Your task to perform on an android device: Go to wifi settings Image 0: 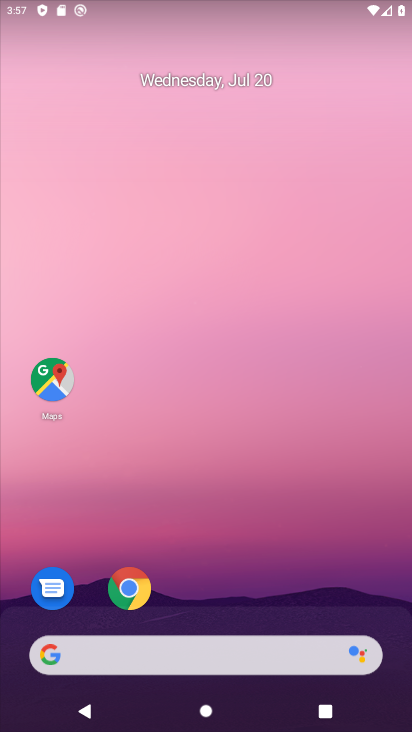
Step 0: press home button
Your task to perform on an android device: Go to wifi settings Image 1: 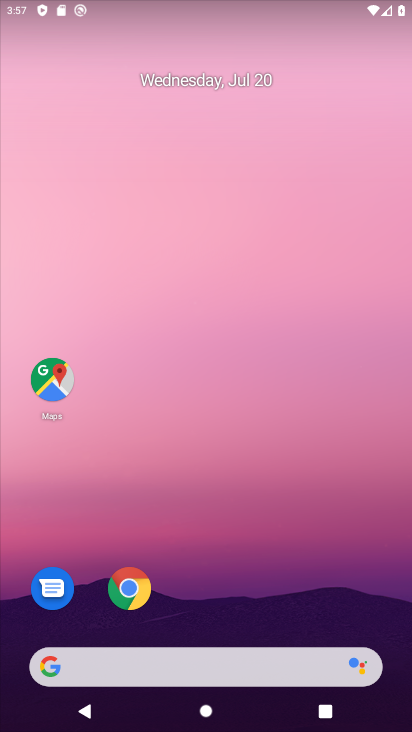
Step 1: drag from (231, 587) to (268, 8)
Your task to perform on an android device: Go to wifi settings Image 2: 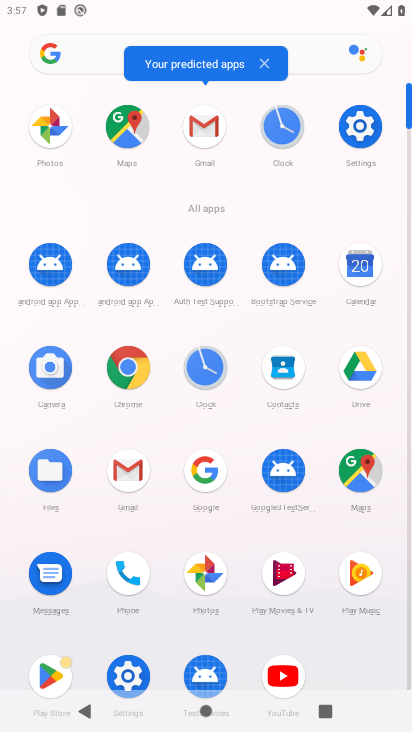
Step 2: click (352, 124)
Your task to perform on an android device: Go to wifi settings Image 3: 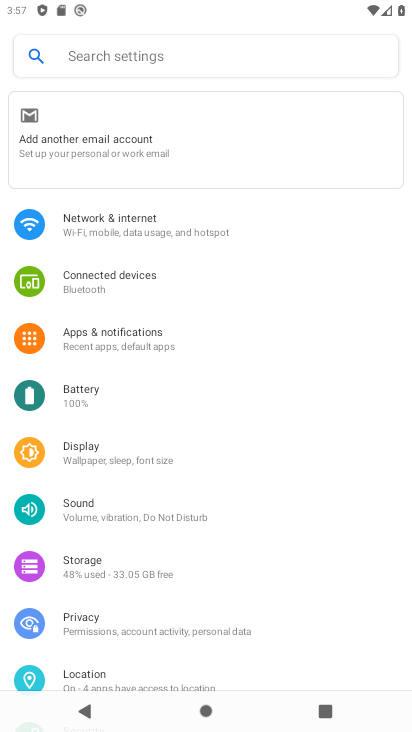
Step 3: click (104, 202)
Your task to perform on an android device: Go to wifi settings Image 4: 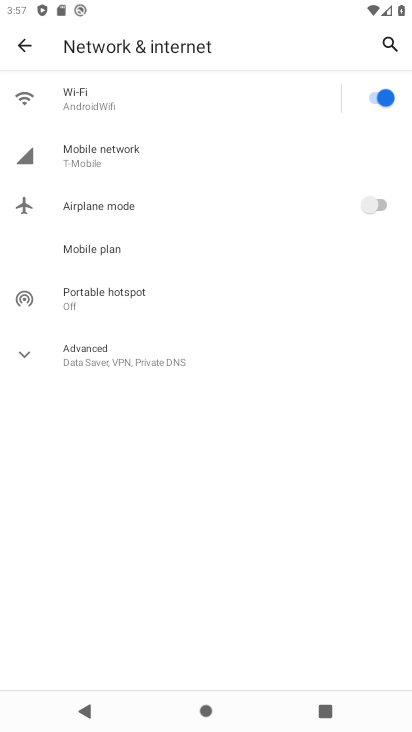
Step 4: click (195, 105)
Your task to perform on an android device: Go to wifi settings Image 5: 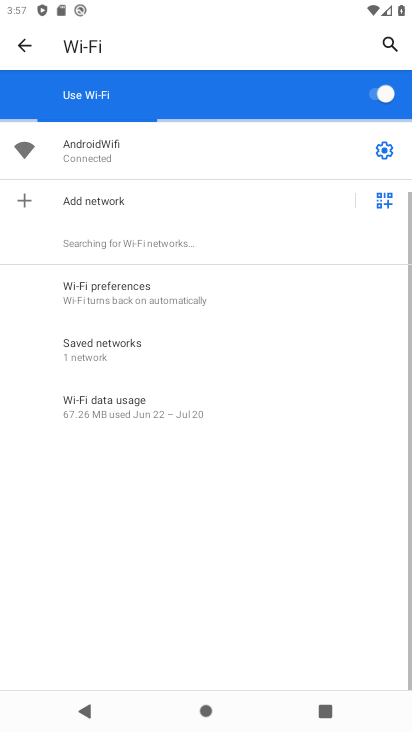
Step 5: task complete